Your task to perform on an android device: Search for logitech g910 on ebay.com, select the first entry, add it to the cart, then select checkout. Image 0: 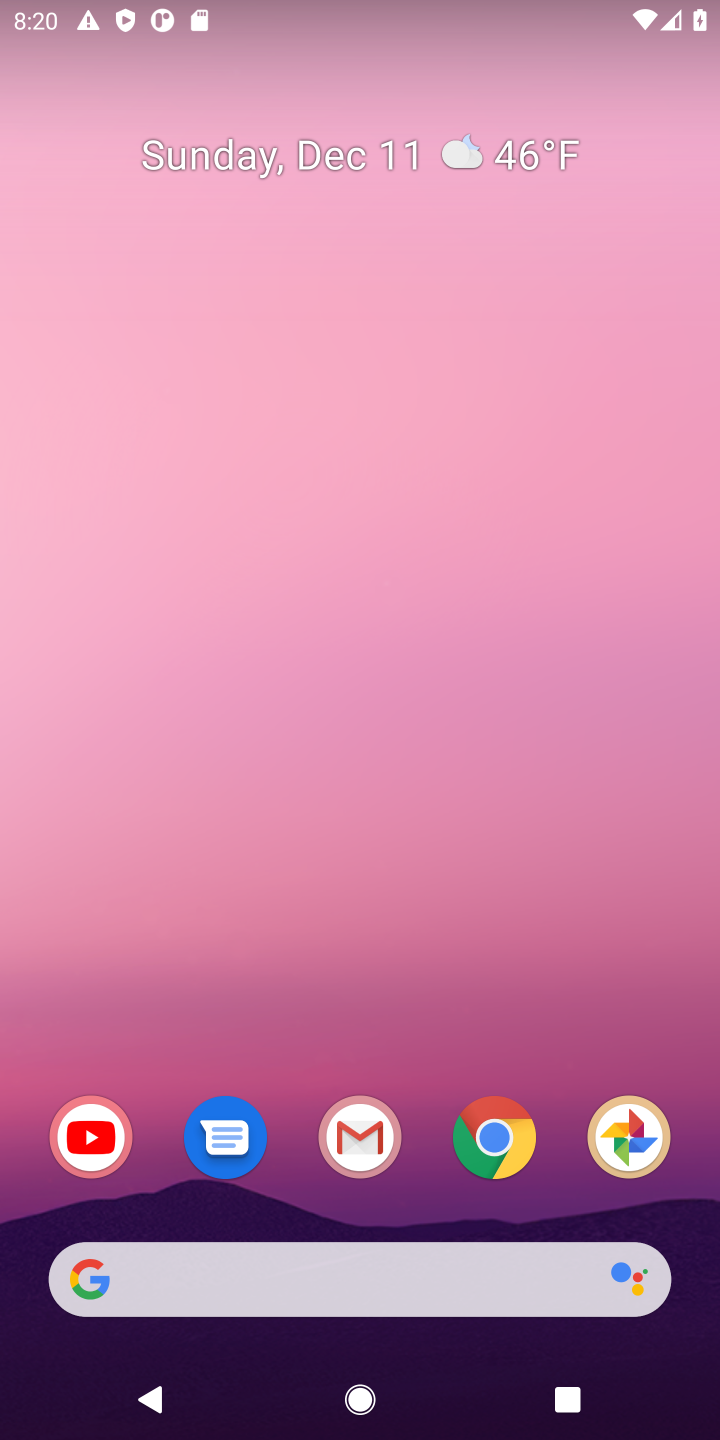
Step 0: click (484, 1145)
Your task to perform on an android device: Search for logitech g910 on ebay.com, select the first entry, add it to the cart, then select checkout. Image 1: 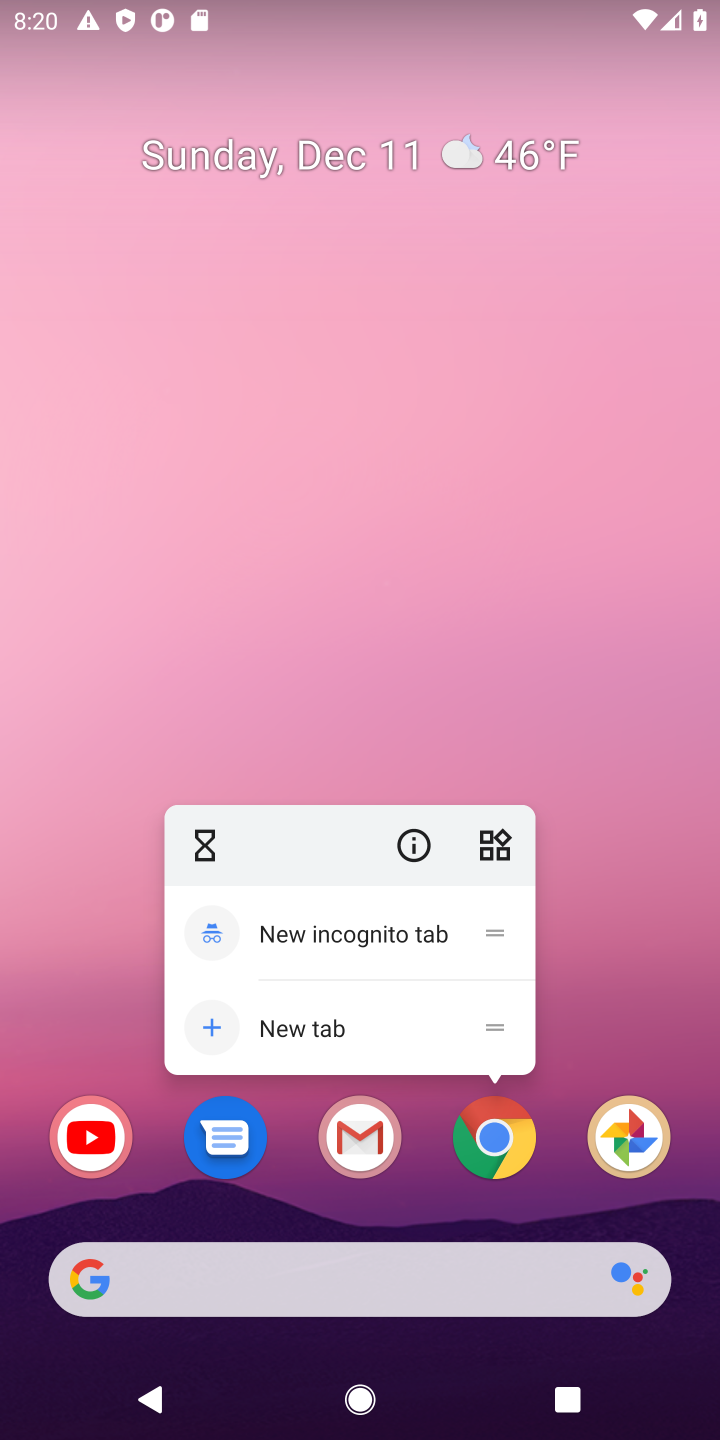
Step 1: click (509, 1134)
Your task to perform on an android device: Search for logitech g910 on ebay.com, select the first entry, add it to the cart, then select checkout. Image 2: 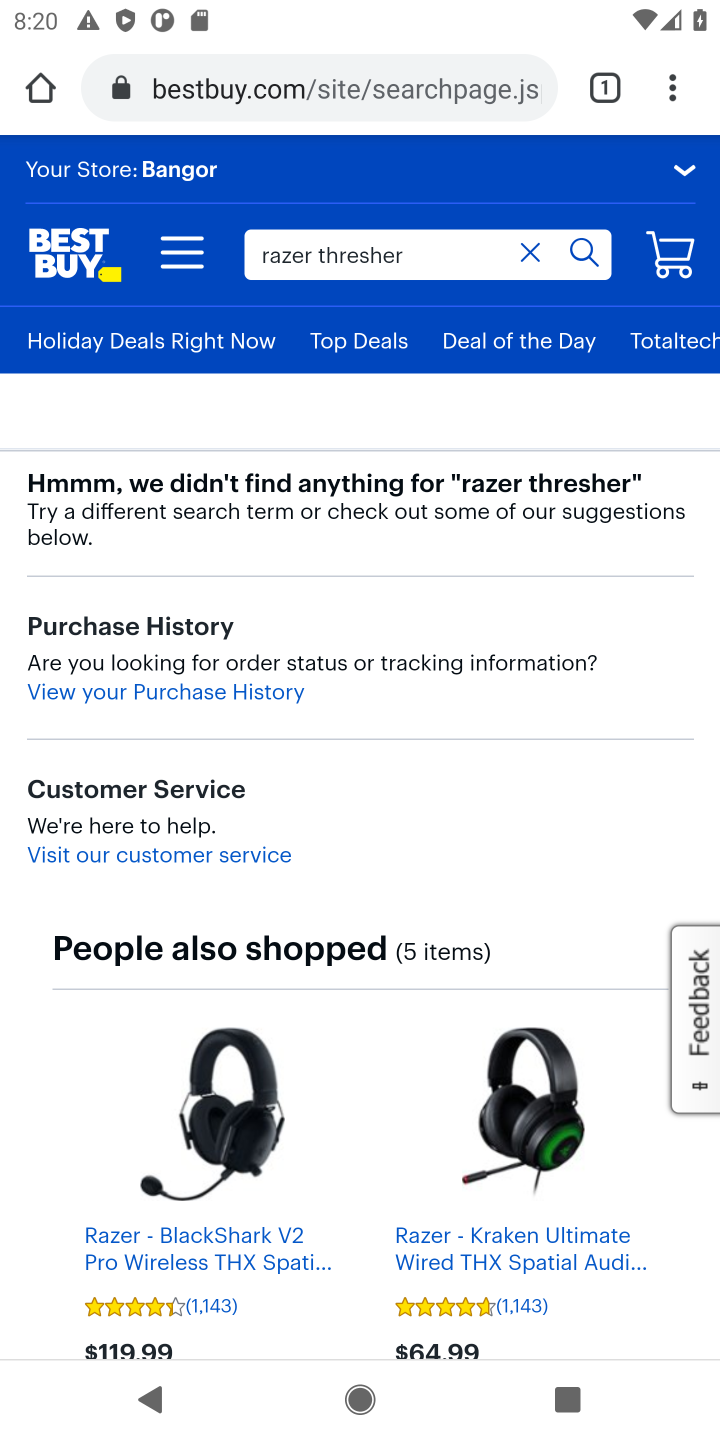
Step 2: click (424, 99)
Your task to perform on an android device: Search for logitech g910 on ebay.com, select the first entry, add it to the cart, then select checkout. Image 3: 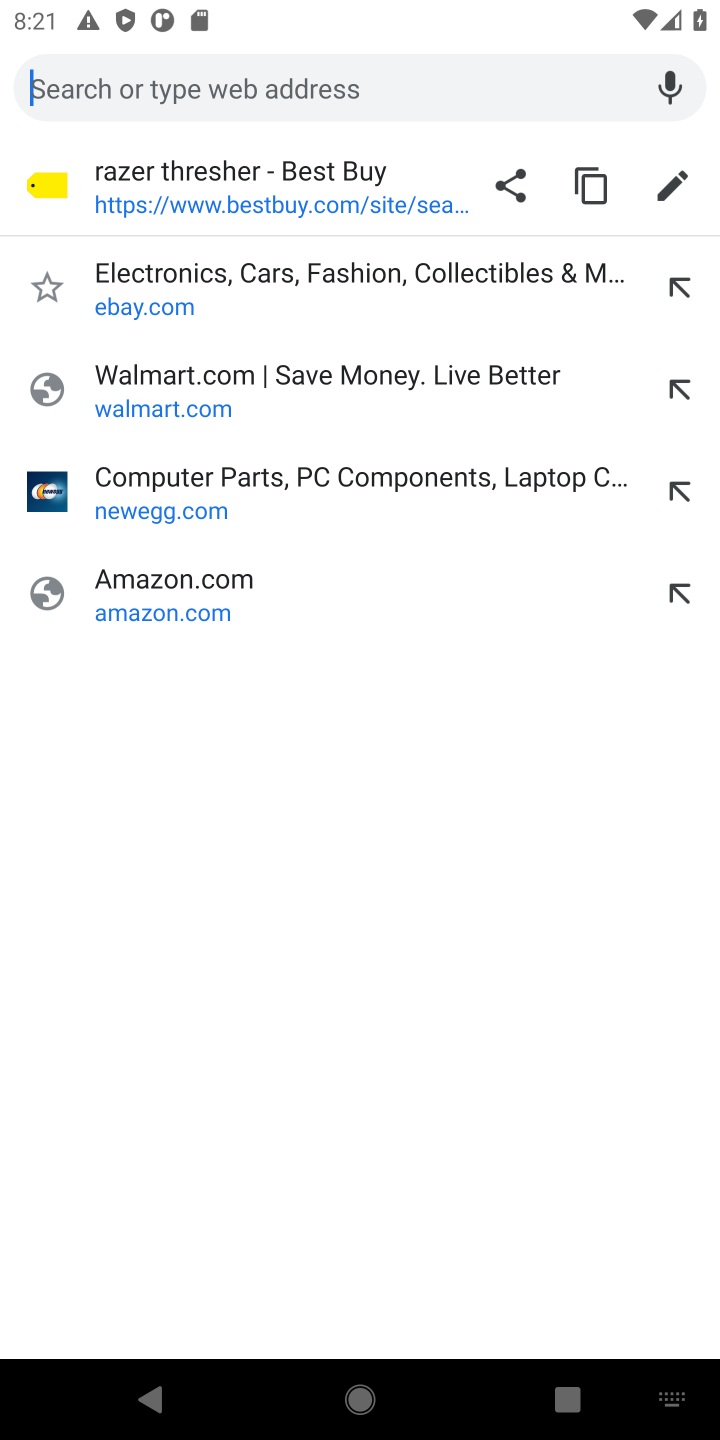
Step 3: click (282, 292)
Your task to perform on an android device: Search for logitech g910 on ebay.com, select the first entry, add it to the cart, then select checkout. Image 4: 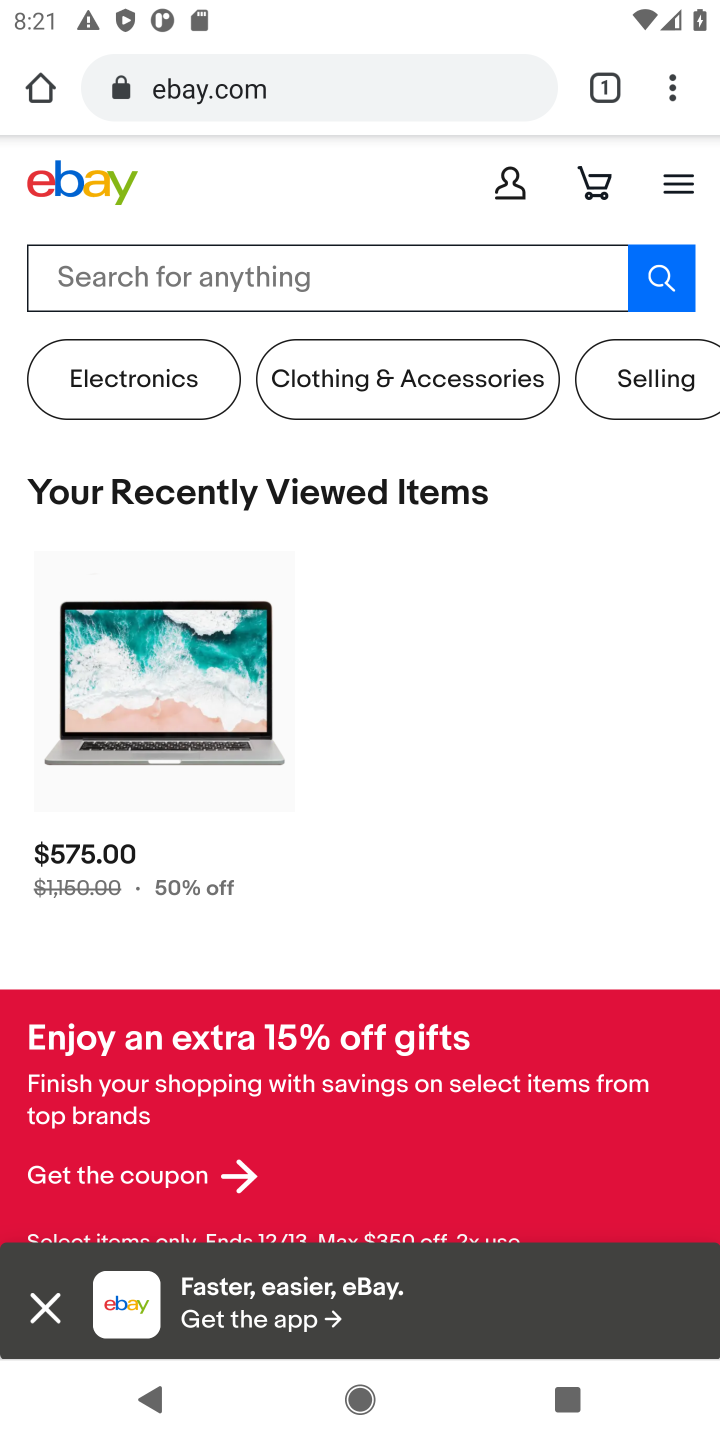
Step 4: click (351, 271)
Your task to perform on an android device: Search for logitech g910 on ebay.com, select the first entry, add it to the cart, then select checkout. Image 5: 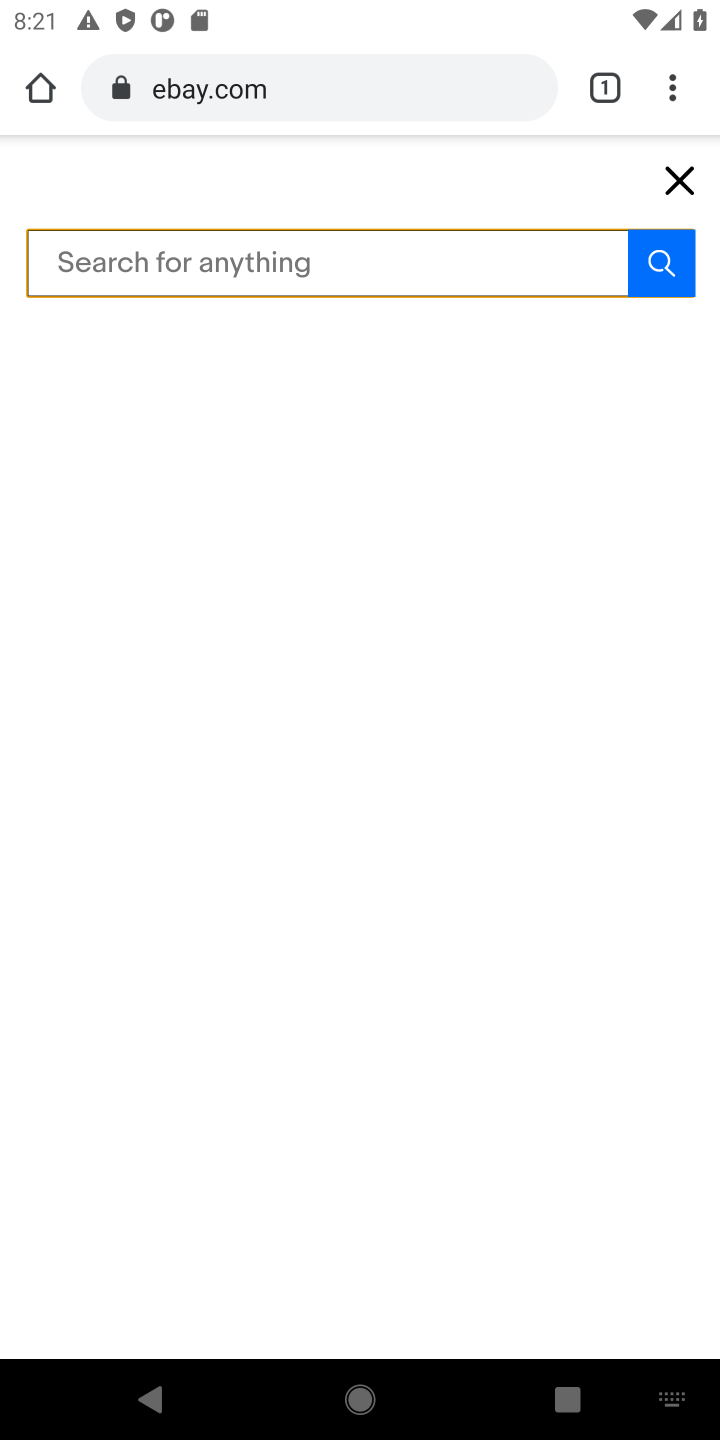
Step 5: type "LOGITECH G910"
Your task to perform on an android device: Search for logitech g910 on ebay.com, select the first entry, add it to the cart, then select checkout. Image 6: 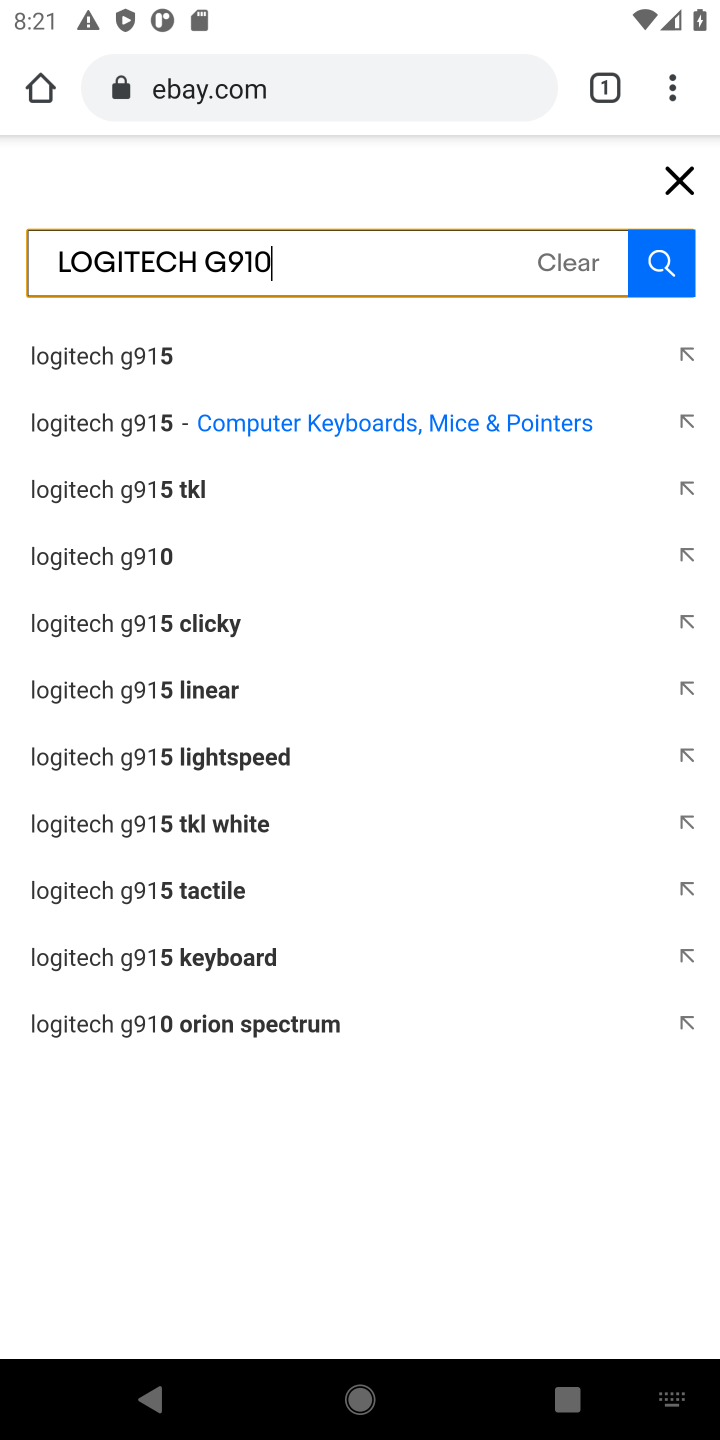
Step 6: click (108, 560)
Your task to perform on an android device: Search for logitech g910 on ebay.com, select the first entry, add it to the cart, then select checkout. Image 7: 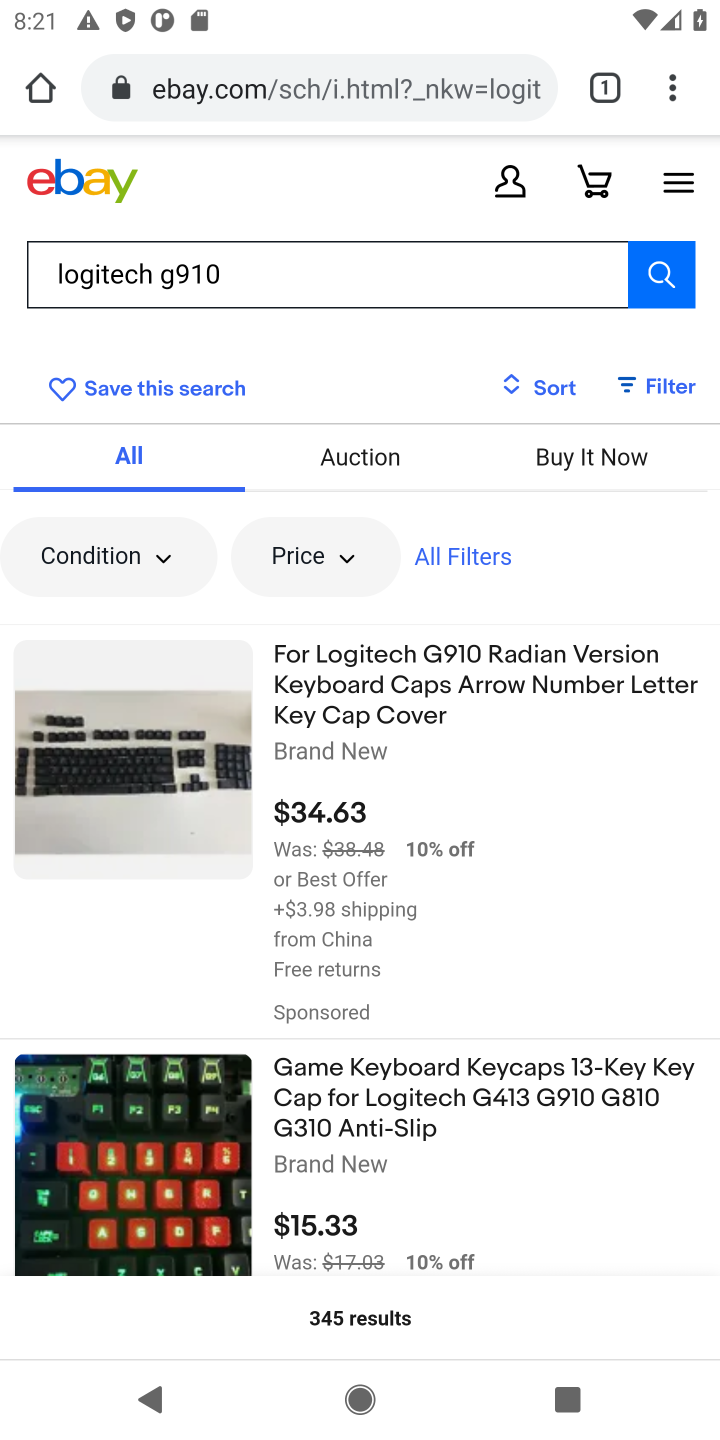
Step 7: click (476, 709)
Your task to perform on an android device: Search for logitech g910 on ebay.com, select the first entry, add it to the cart, then select checkout. Image 8: 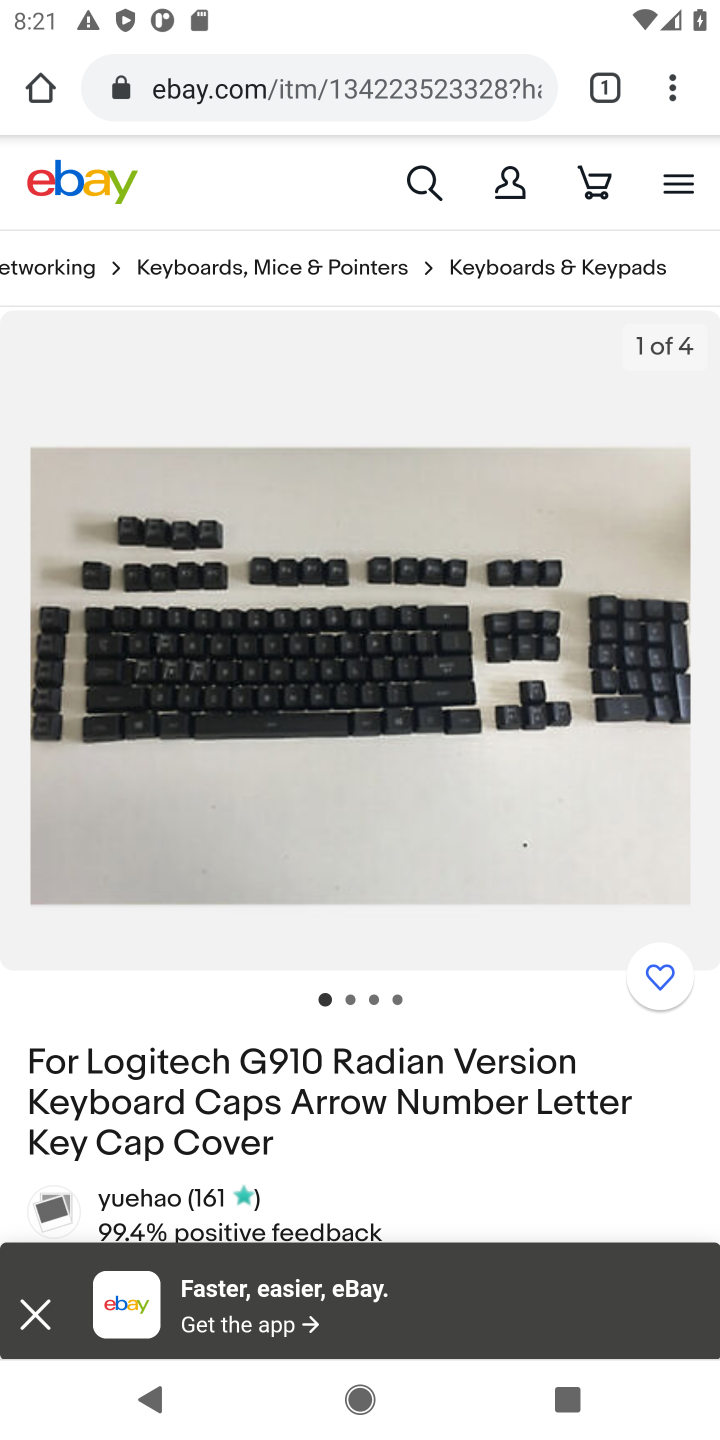
Step 8: drag from (521, 1253) to (391, 344)
Your task to perform on an android device: Search for logitech g910 on ebay.com, select the first entry, add it to the cart, then select checkout. Image 9: 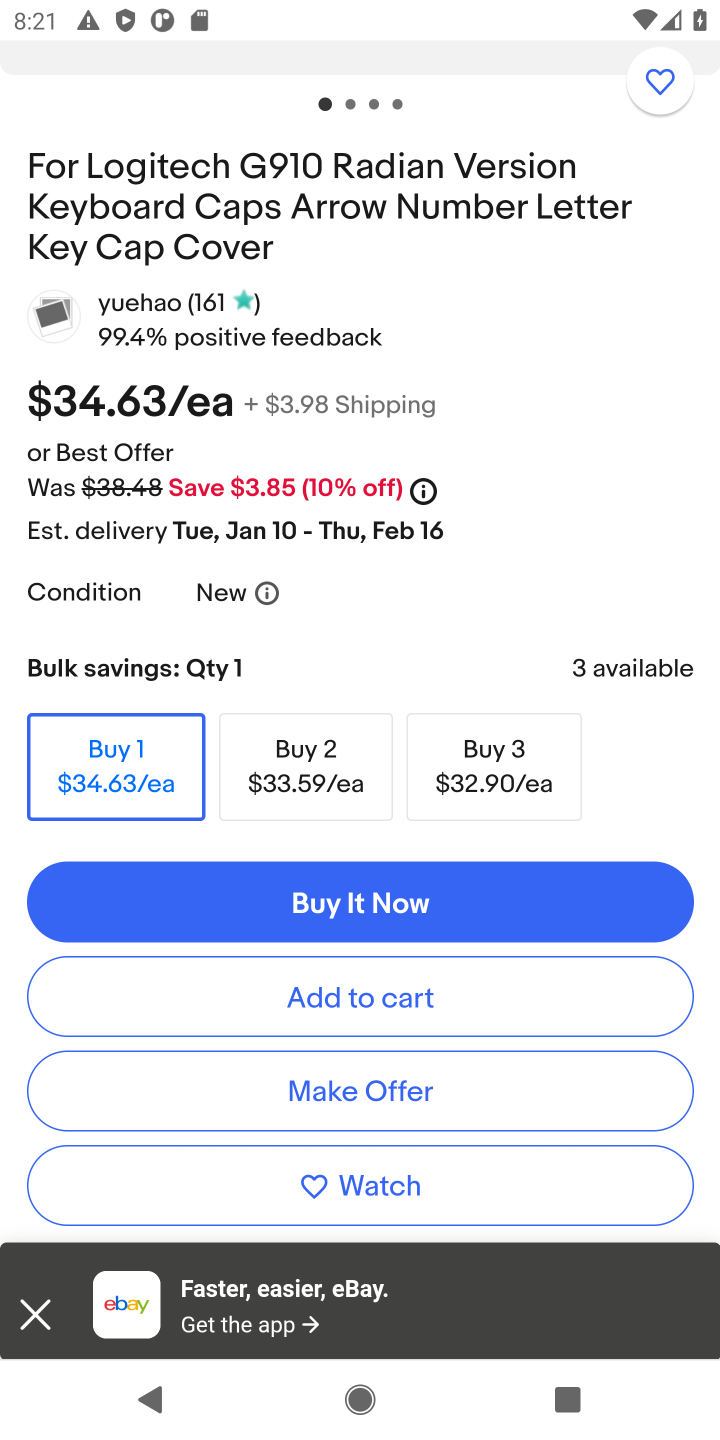
Step 9: click (321, 989)
Your task to perform on an android device: Search for logitech g910 on ebay.com, select the first entry, add it to the cart, then select checkout. Image 10: 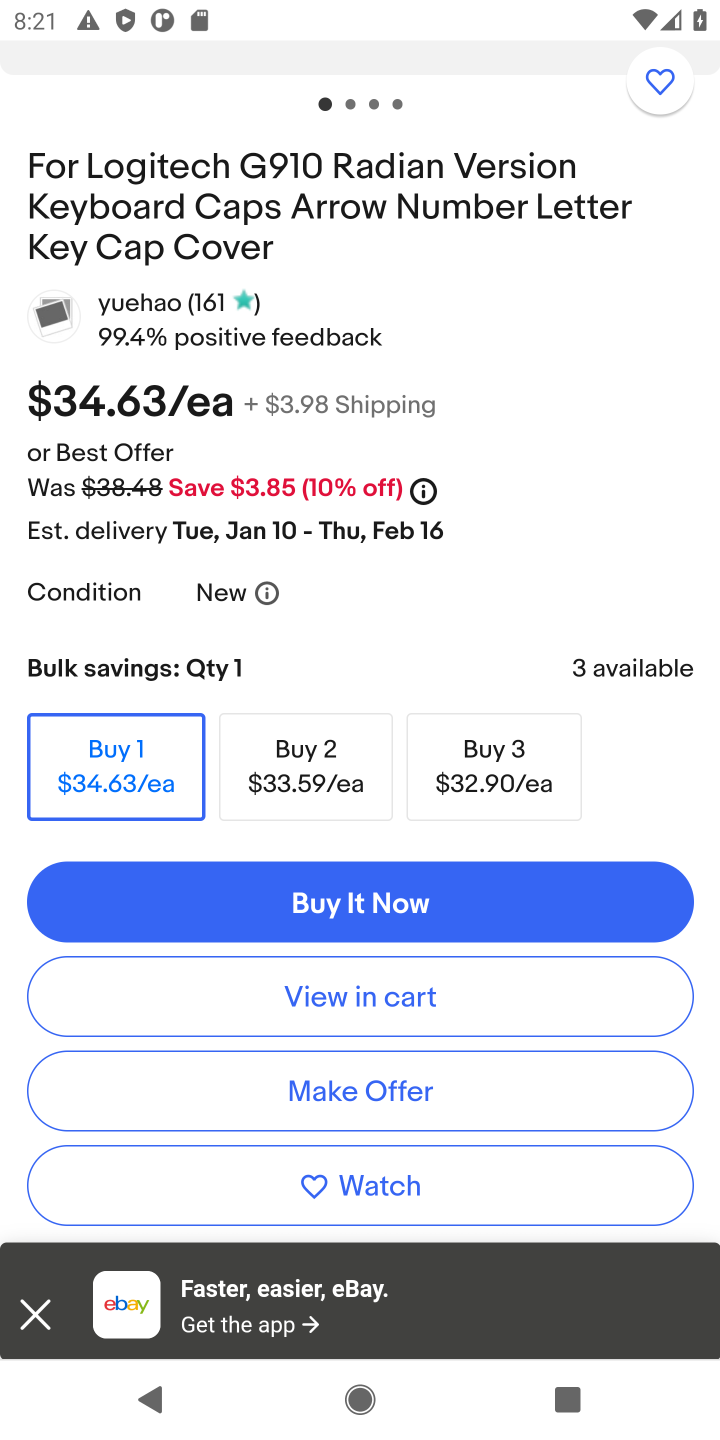
Step 10: click (321, 989)
Your task to perform on an android device: Search for logitech g910 on ebay.com, select the first entry, add it to the cart, then select checkout. Image 11: 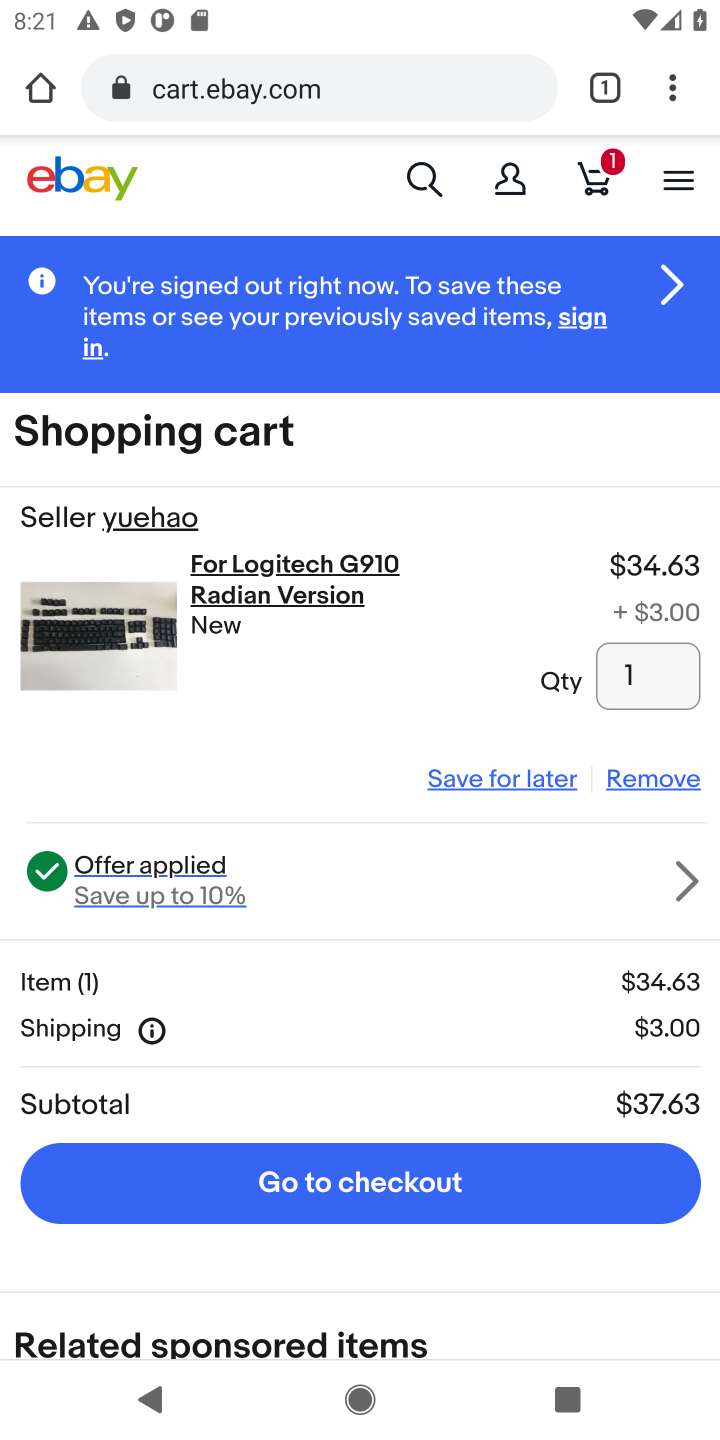
Step 11: click (391, 1189)
Your task to perform on an android device: Search for logitech g910 on ebay.com, select the first entry, add it to the cart, then select checkout. Image 12: 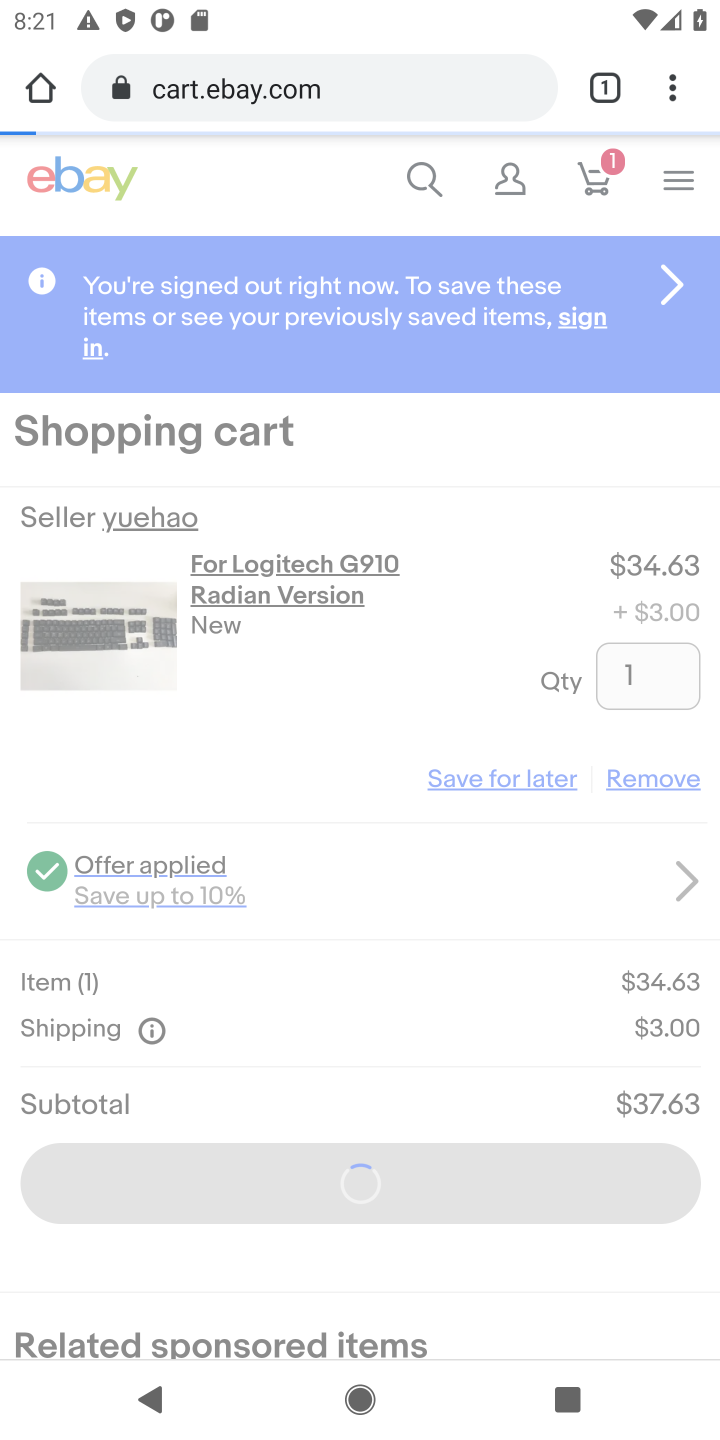
Step 12: task complete